Your task to perform on an android device: see tabs open on other devices in the chrome app Image 0: 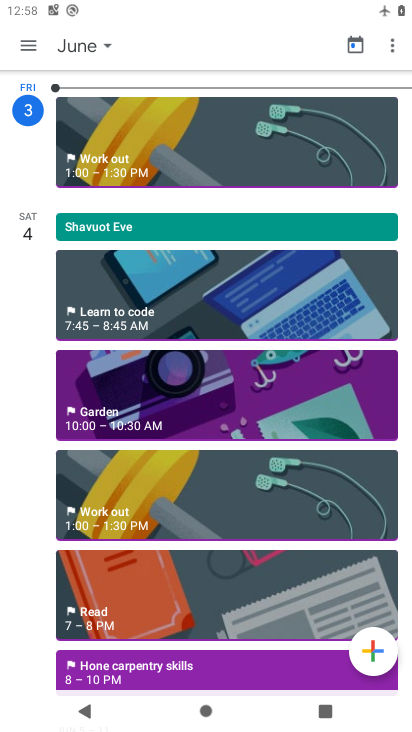
Step 0: press home button
Your task to perform on an android device: see tabs open on other devices in the chrome app Image 1: 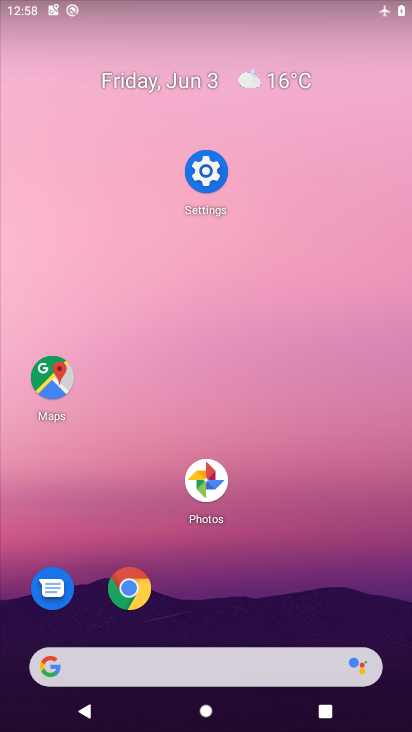
Step 1: drag from (181, 553) to (260, 312)
Your task to perform on an android device: see tabs open on other devices in the chrome app Image 2: 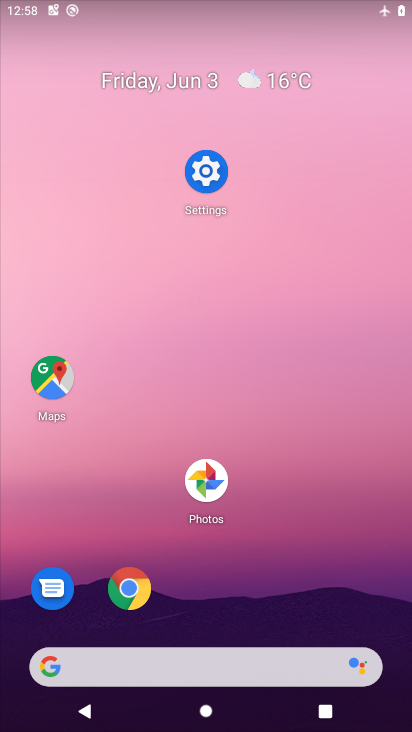
Step 2: drag from (179, 559) to (217, 364)
Your task to perform on an android device: see tabs open on other devices in the chrome app Image 3: 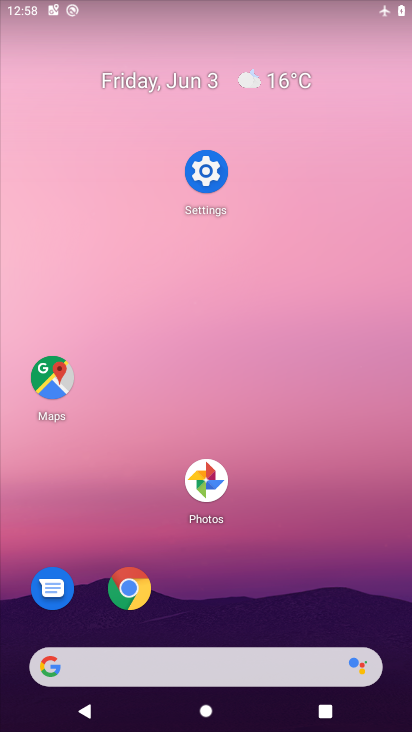
Step 3: drag from (209, 623) to (291, 363)
Your task to perform on an android device: see tabs open on other devices in the chrome app Image 4: 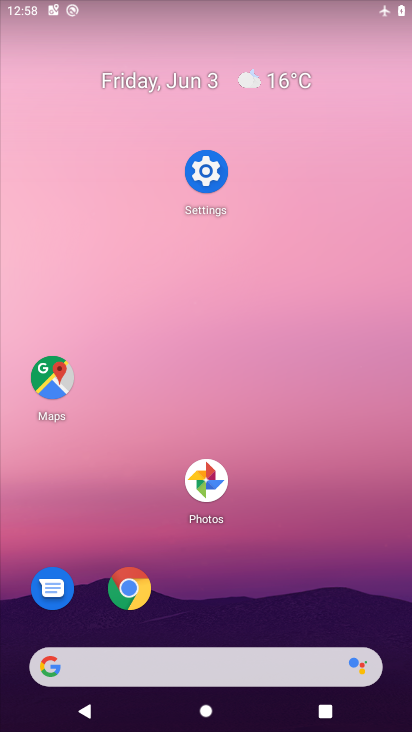
Step 4: click (118, 568)
Your task to perform on an android device: see tabs open on other devices in the chrome app Image 5: 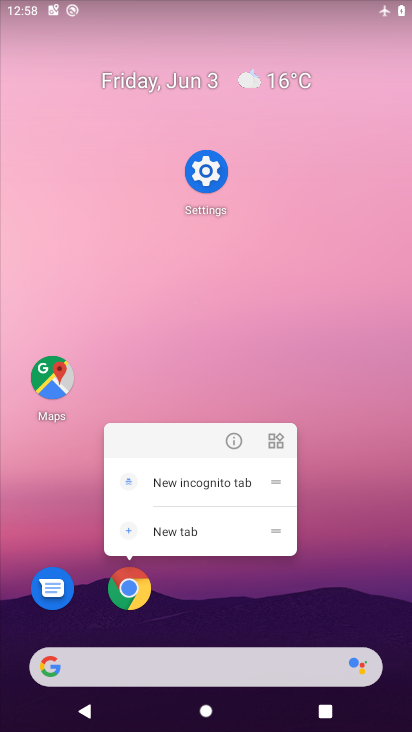
Step 5: click (241, 433)
Your task to perform on an android device: see tabs open on other devices in the chrome app Image 6: 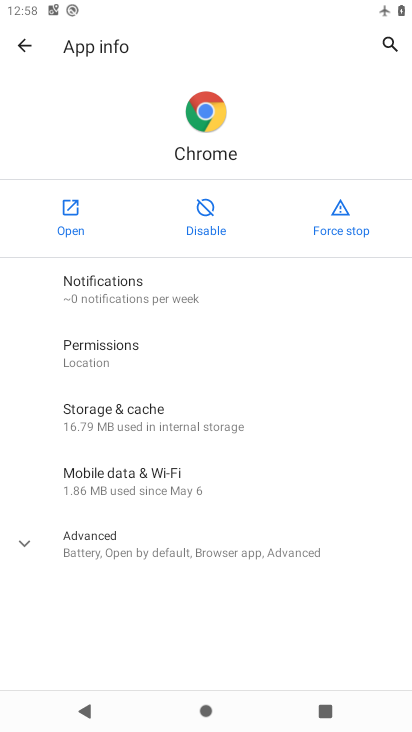
Step 6: click (56, 217)
Your task to perform on an android device: see tabs open on other devices in the chrome app Image 7: 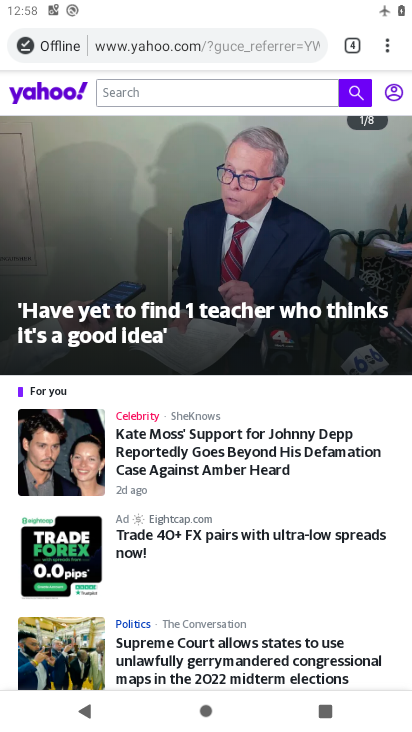
Step 7: click (398, 49)
Your task to perform on an android device: see tabs open on other devices in the chrome app Image 8: 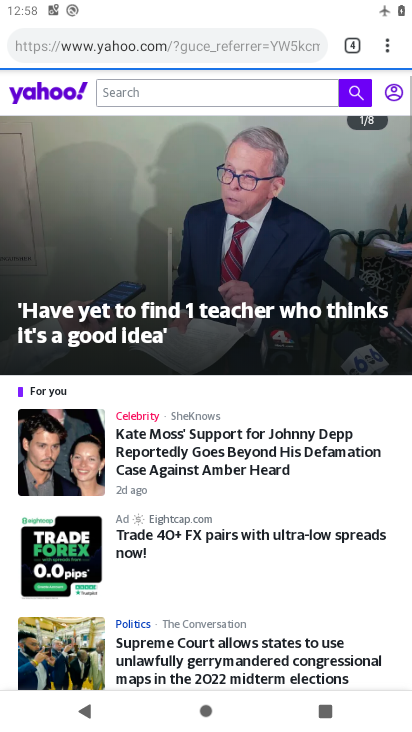
Step 8: click (385, 56)
Your task to perform on an android device: see tabs open on other devices in the chrome app Image 9: 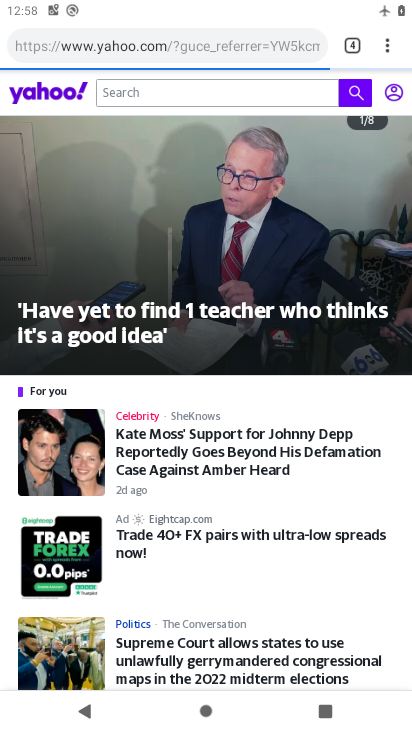
Step 9: task complete